Your task to perform on an android device: open app "DoorDash - Food Delivery" (install if not already installed) Image 0: 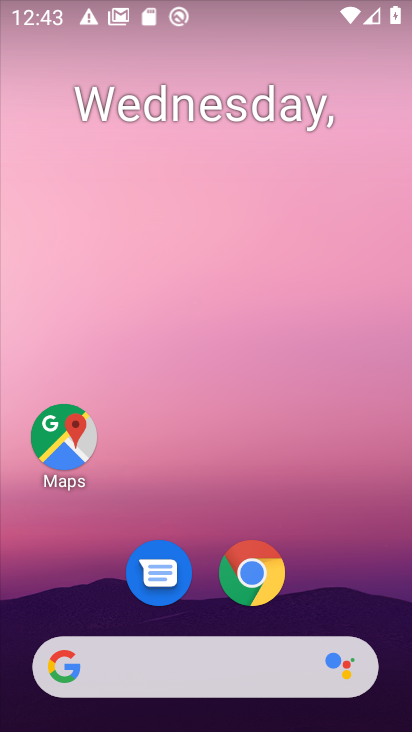
Step 0: press home button
Your task to perform on an android device: open app "DoorDash - Food Delivery" (install if not already installed) Image 1: 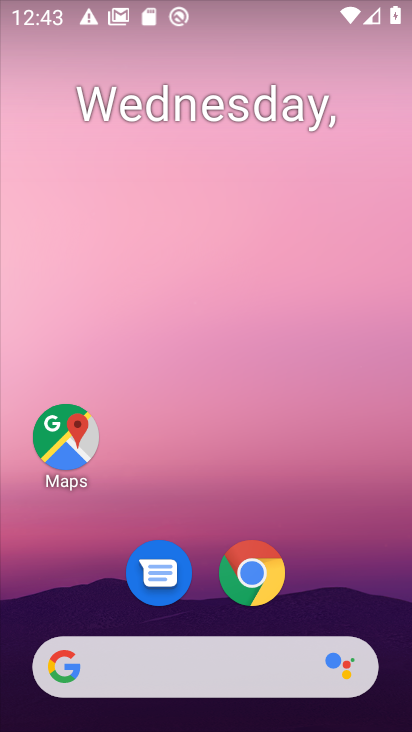
Step 1: press home button
Your task to perform on an android device: open app "DoorDash - Food Delivery" (install if not already installed) Image 2: 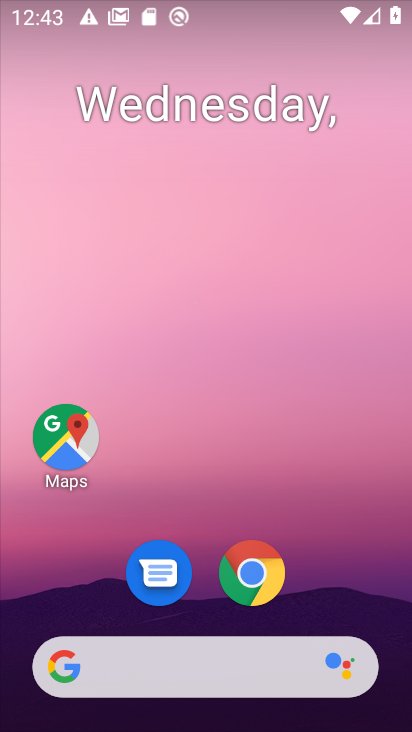
Step 2: drag from (328, 611) to (337, 86)
Your task to perform on an android device: open app "DoorDash - Food Delivery" (install if not already installed) Image 3: 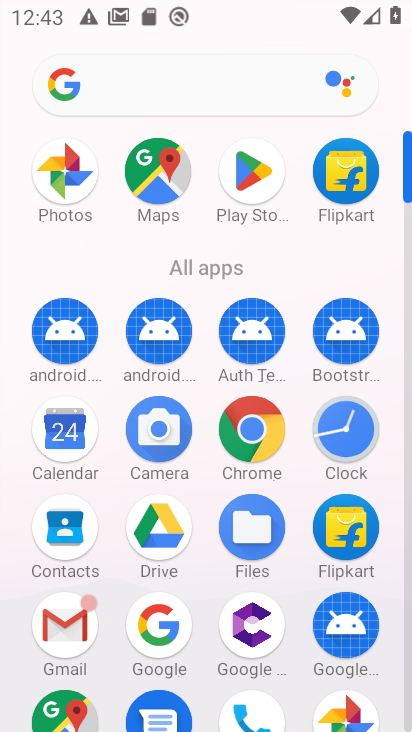
Step 3: click (248, 164)
Your task to perform on an android device: open app "DoorDash - Food Delivery" (install if not already installed) Image 4: 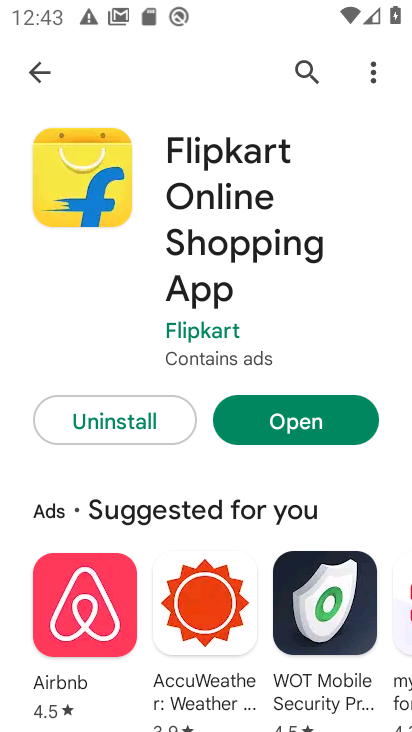
Step 4: click (305, 66)
Your task to perform on an android device: open app "DoorDash - Food Delivery" (install if not already installed) Image 5: 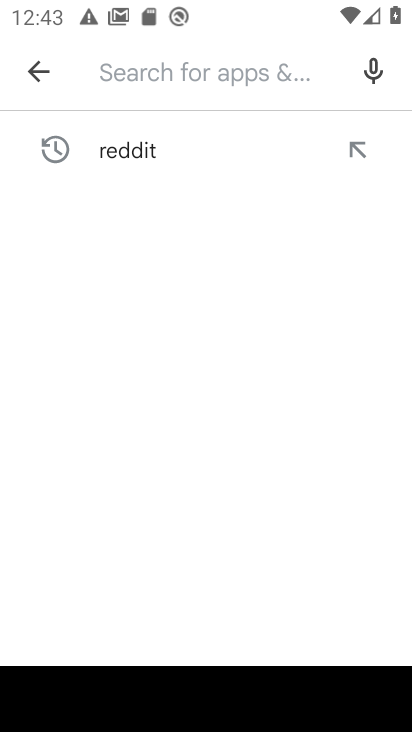
Step 5: type "DoorDash - Food Delivery"
Your task to perform on an android device: open app "DoorDash - Food Delivery" (install if not already installed) Image 6: 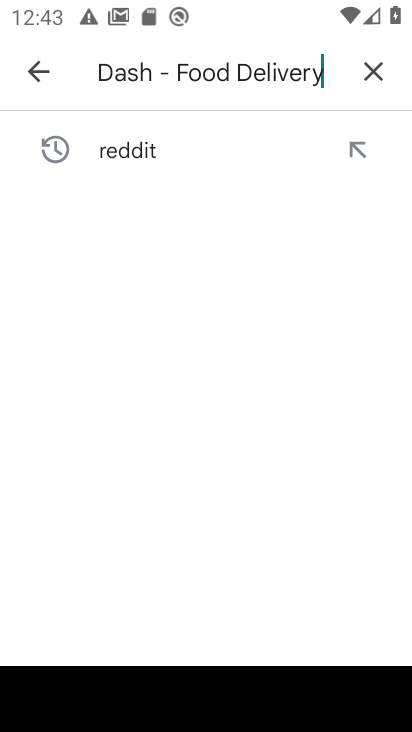
Step 6: type ""
Your task to perform on an android device: open app "DoorDash - Food Delivery" (install if not already installed) Image 7: 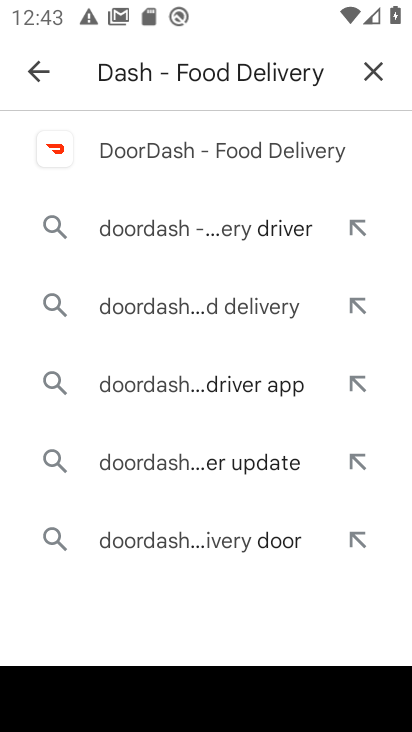
Step 7: click (82, 147)
Your task to perform on an android device: open app "DoorDash - Food Delivery" (install if not already installed) Image 8: 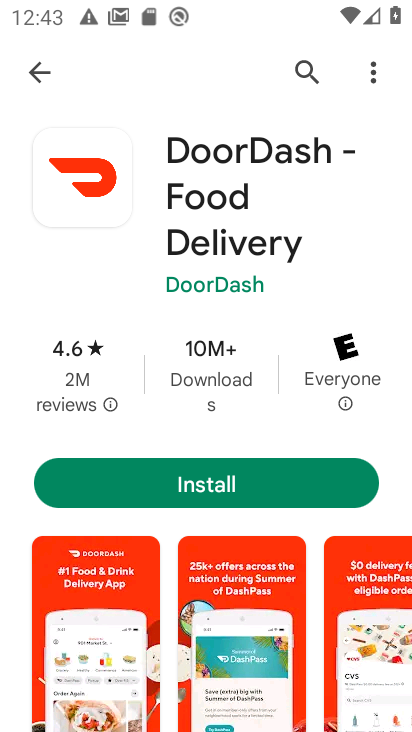
Step 8: click (219, 479)
Your task to perform on an android device: open app "DoorDash - Food Delivery" (install if not already installed) Image 9: 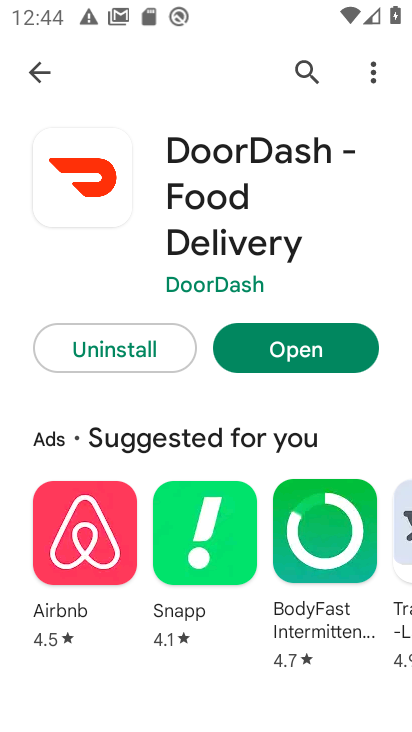
Step 9: click (305, 350)
Your task to perform on an android device: open app "DoorDash - Food Delivery" (install if not already installed) Image 10: 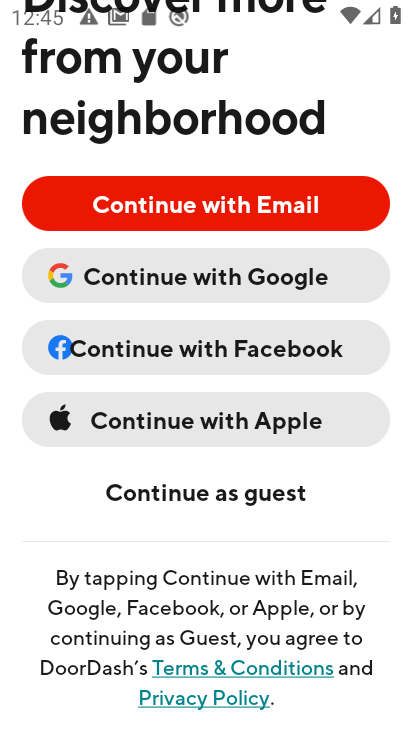
Step 10: click (221, 274)
Your task to perform on an android device: open app "DoorDash - Food Delivery" (install if not already installed) Image 11: 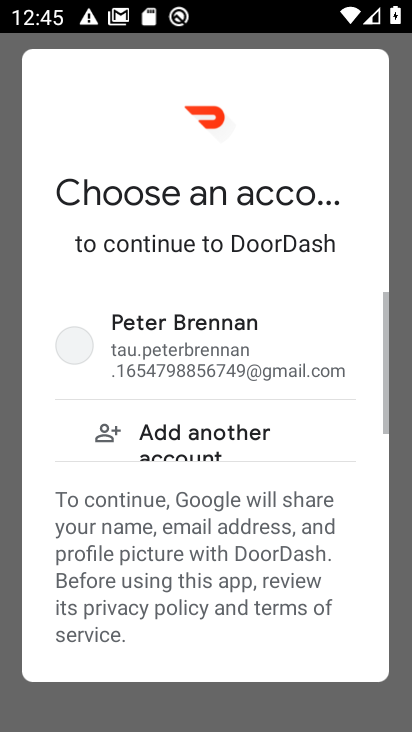
Step 11: click (187, 326)
Your task to perform on an android device: open app "DoorDash - Food Delivery" (install if not already installed) Image 12: 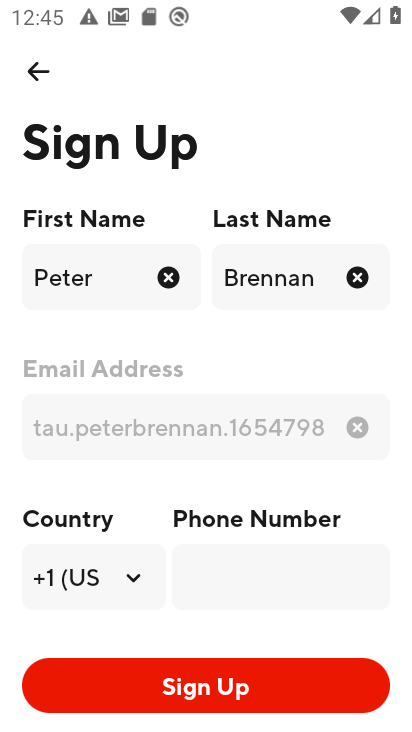
Step 12: click (196, 693)
Your task to perform on an android device: open app "DoorDash - Food Delivery" (install if not already installed) Image 13: 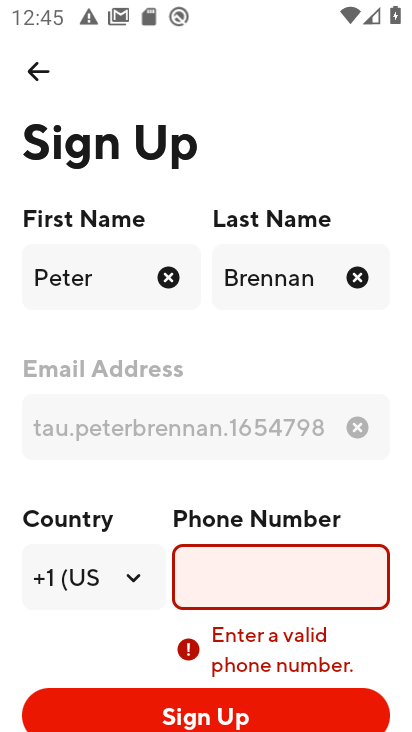
Step 13: task complete